Your task to perform on an android device: When is my next appointment? Image 0: 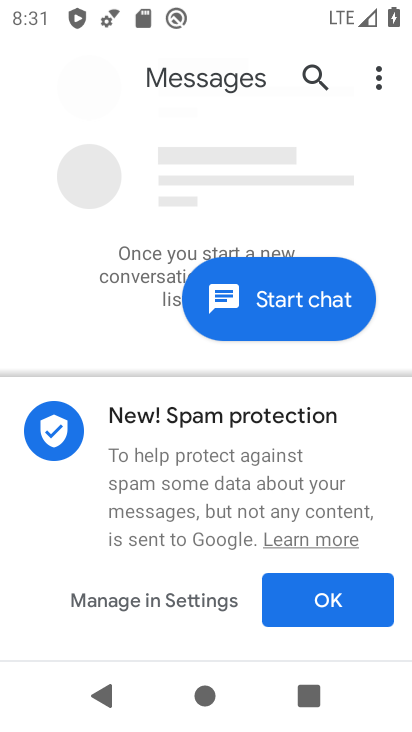
Step 0: press home button
Your task to perform on an android device: When is my next appointment? Image 1: 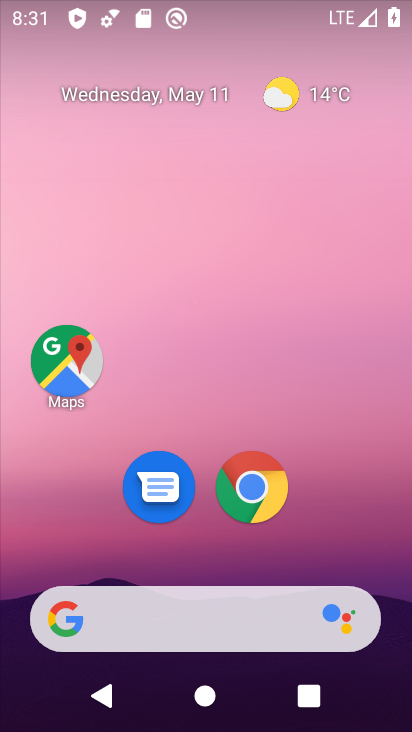
Step 1: drag from (308, 560) to (339, 213)
Your task to perform on an android device: When is my next appointment? Image 2: 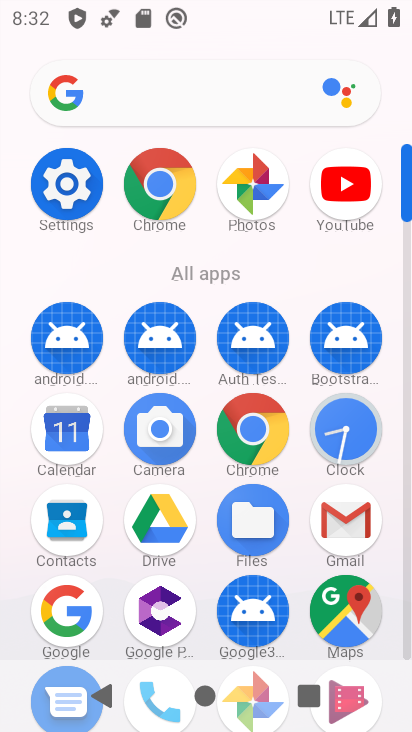
Step 2: click (62, 459)
Your task to perform on an android device: When is my next appointment? Image 3: 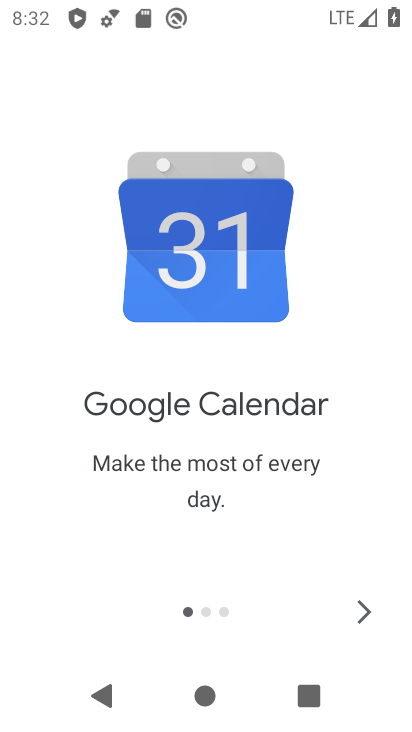
Step 3: click (362, 615)
Your task to perform on an android device: When is my next appointment? Image 4: 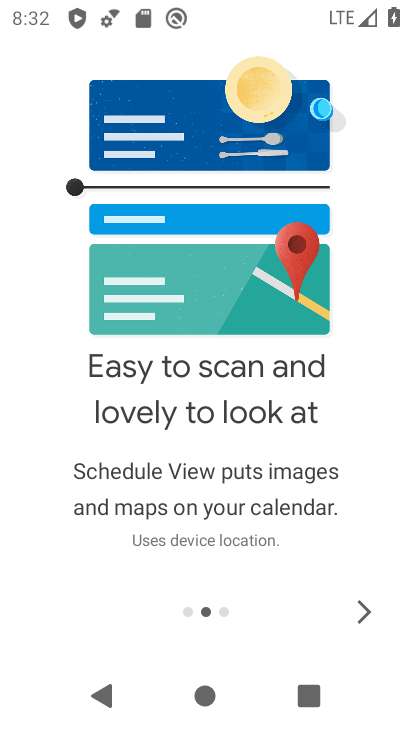
Step 4: click (362, 615)
Your task to perform on an android device: When is my next appointment? Image 5: 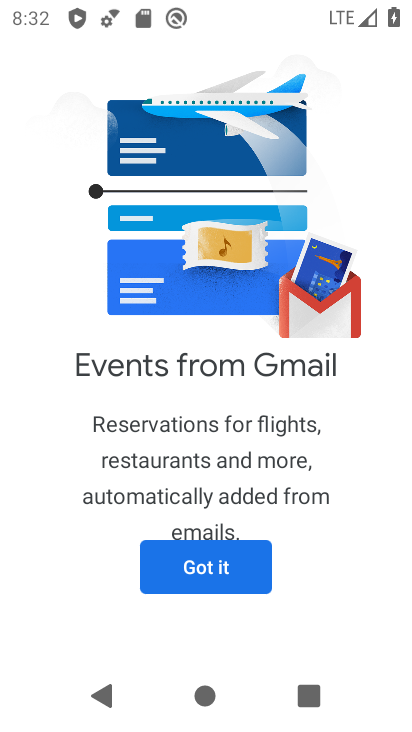
Step 5: click (226, 565)
Your task to perform on an android device: When is my next appointment? Image 6: 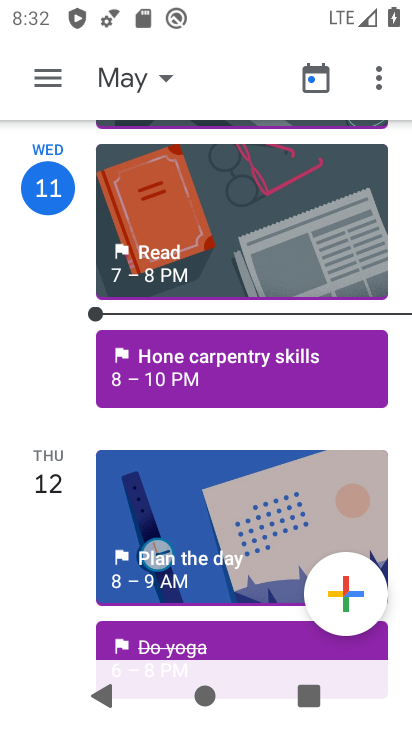
Step 6: drag from (85, 597) to (126, 370)
Your task to perform on an android device: When is my next appointment? Image 7: 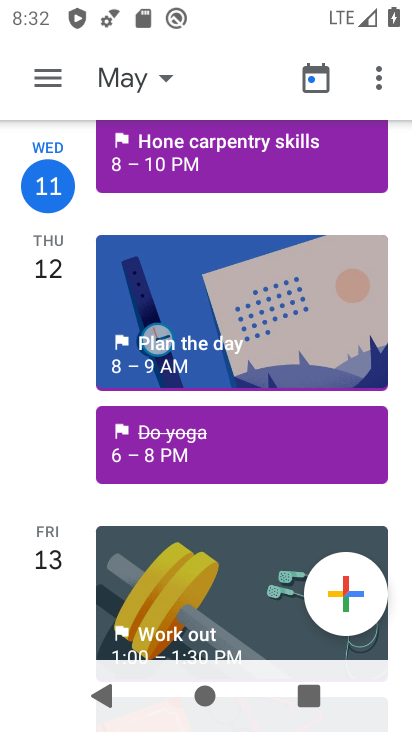
Step 7: click (118, 84)
Your task to perform on an android device: When is my next appointment? Image 8: 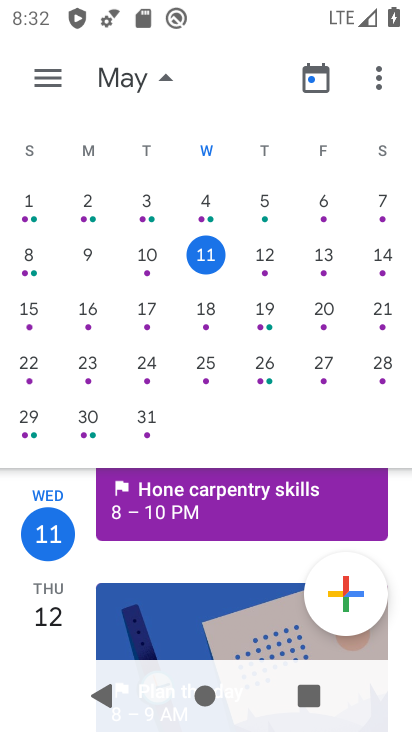
Step 8: click (132, 82)
Your task to perform on an android device: When is my next appointment? Image 9: 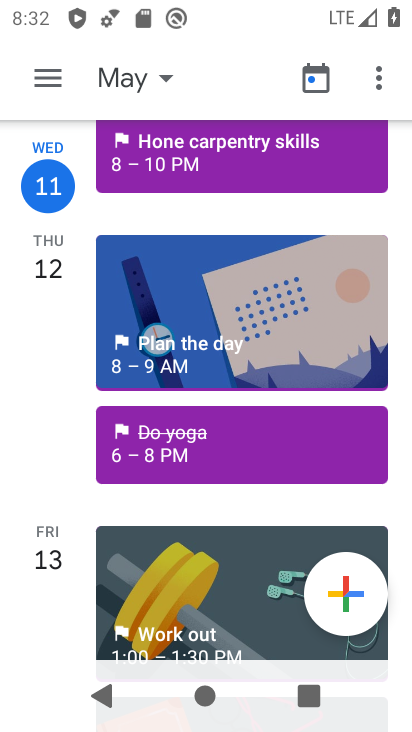
Step 9: drag from (103, 614) to (188, 249)
Your task to perform on an android device: When is my next appointment? Image 10: 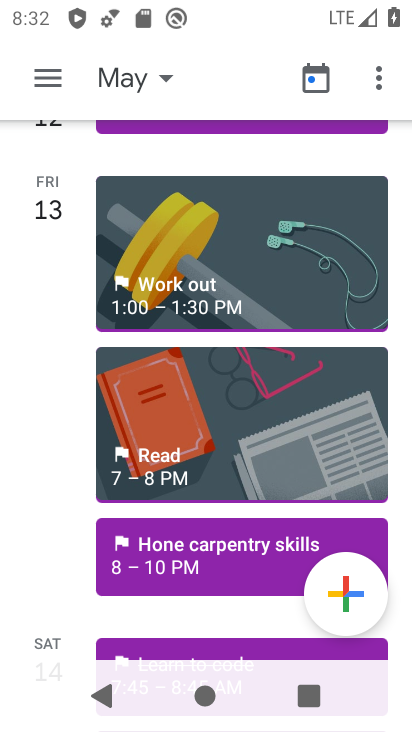
Step 10: drag from (202, 556) to (207, 270)
Your task to perform on an android device: When is my next appointment? Image 11: 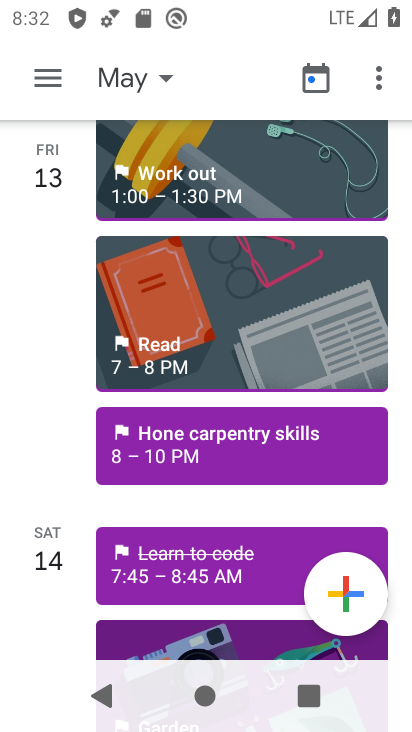
Step 11: drag from (137, 554) to (168, 342)
Your task to perform on an android device: When is my next appointment? Image 12: 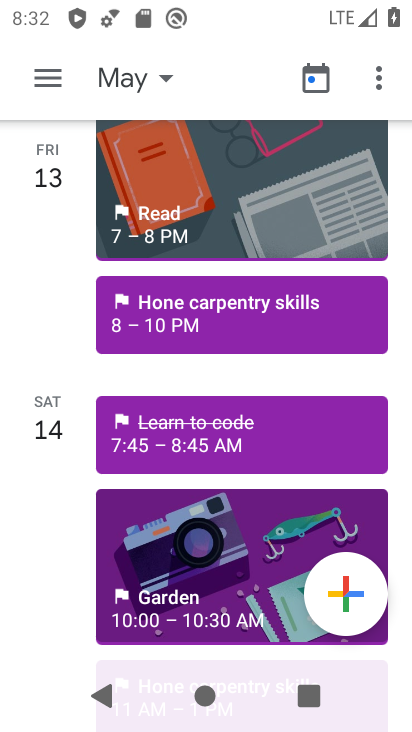
Step 12: drag from (164, 635) to (170, 388)
Your task to perform on an android device: When is my next appointment? Image 13: 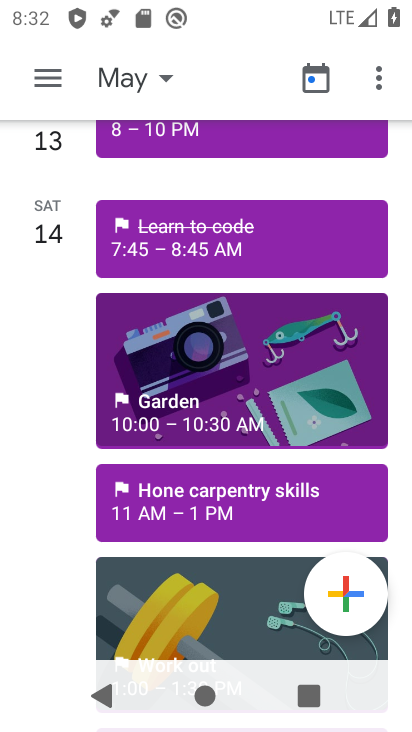
Step 13: drag from (176, 679) to (211, 440)
Your task to perform on an android device: When is my next appointment? Image 14: 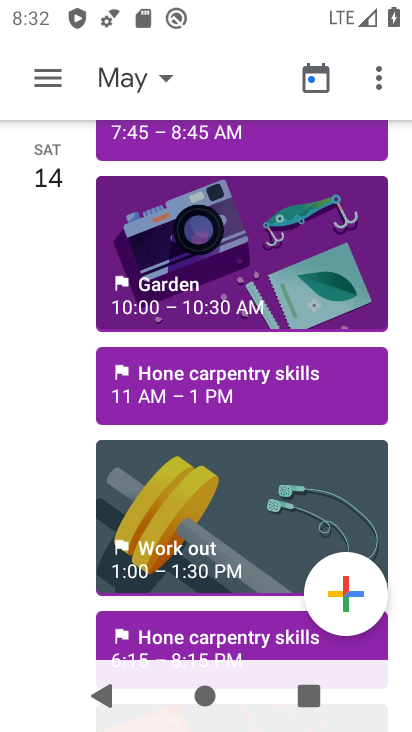
Step 14: drag from (176, 524) to (172, 457)
Your task to perform on an android device: When is my next appointment? Image 15: 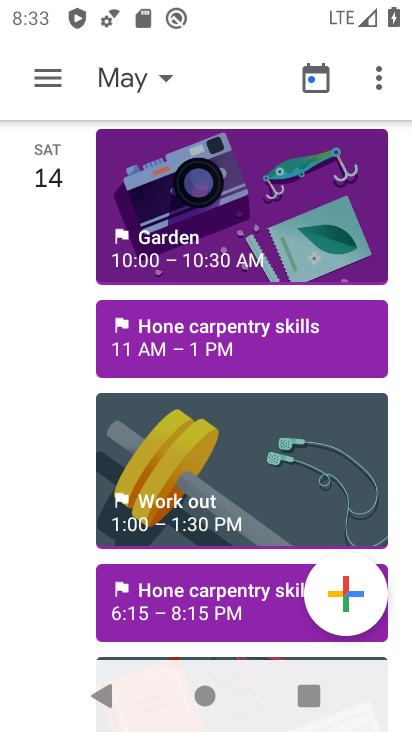
Step 15: click (166, 663)
Your task to perform on an android device: When is my next appointment? Image 16: 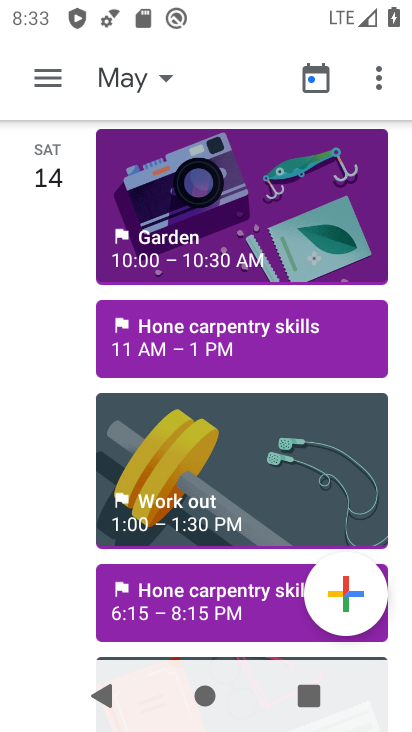
Step 16: task complete